Your task to perform on an android device: Open calendar and show me the third week of next month Image 0: 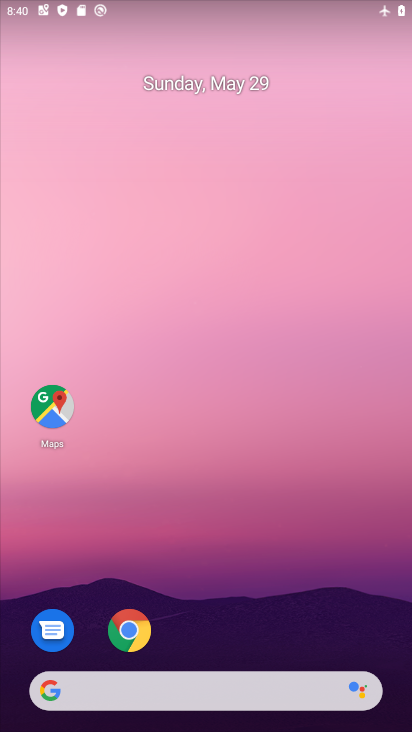
Step 0: drag from (236, 646) to (265, 12)
Your task to perform on an android device: Open calendar and show me the third week of next month Image 1: 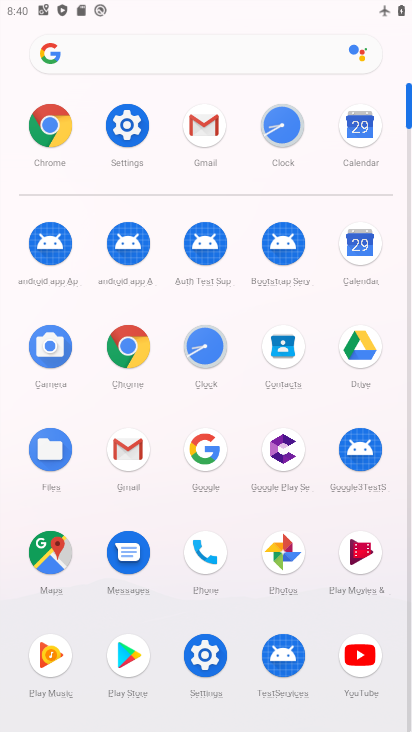
Step 1: click (349, 247)
Your task to perform on an android device: Open calendar and show me the third week of next month Image 2: 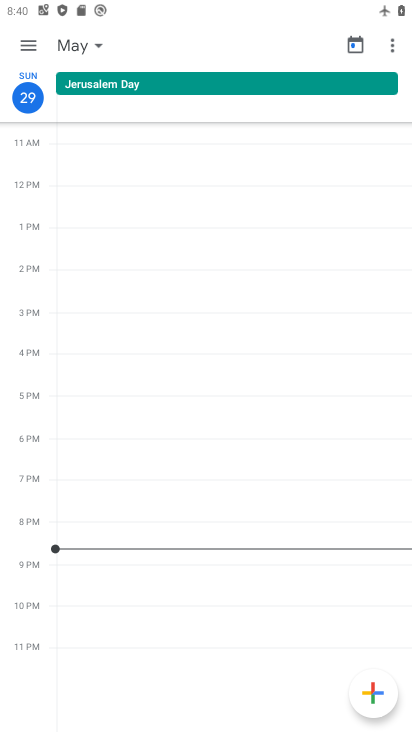
Step 2: click (22, 38)
Your task to perform on an android device: Open calendar and show me the third week of next month Image 3: 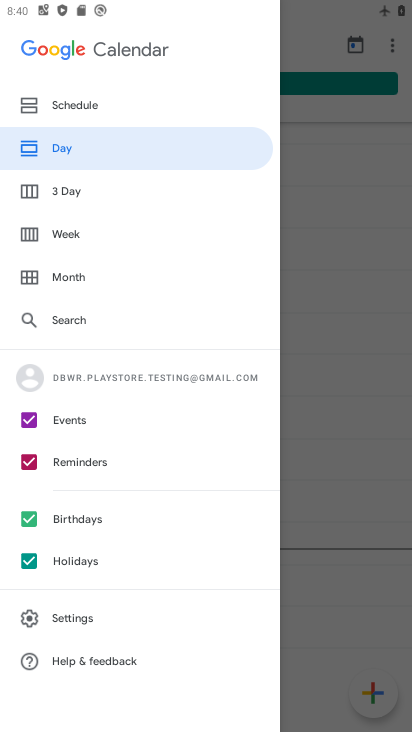
Step 3: click (90, 236)
Your task to perform on an android device: Open calendar and show me the third week of next month Image 4: 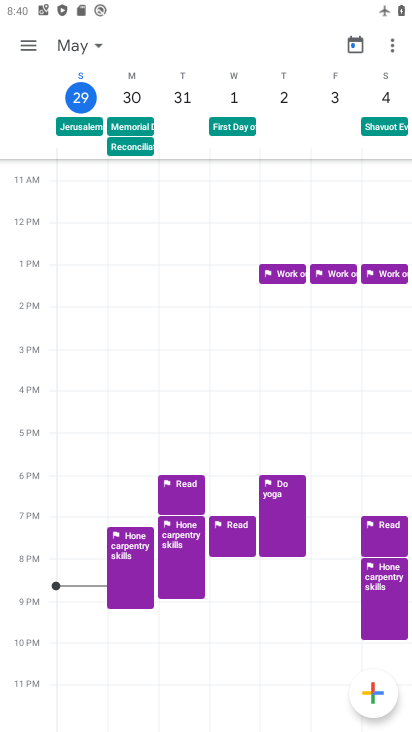
Step 4: task complete